Your task to perform on an android device: Open calendar and show me the second week of next month Image 0: 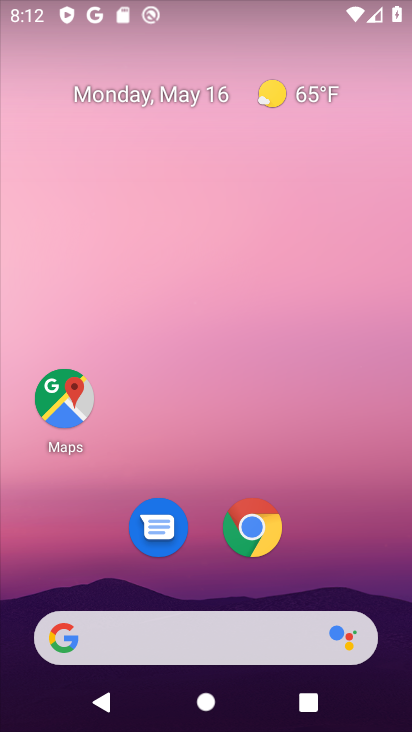
Step 0: drag from (330, 568) to (406, 180)
Your task to perform on an android device: Open calendar and show me the second week of next month Image 1: 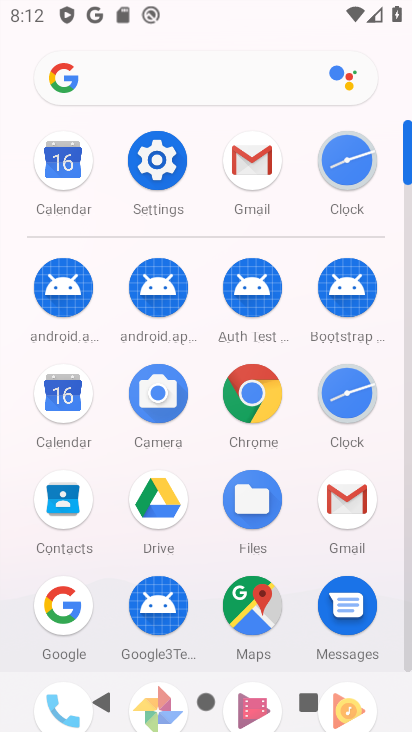
Step 1: click (63, 389)
Your task to perform on an android device: Open calendar and show me the second week of next month Image 2: 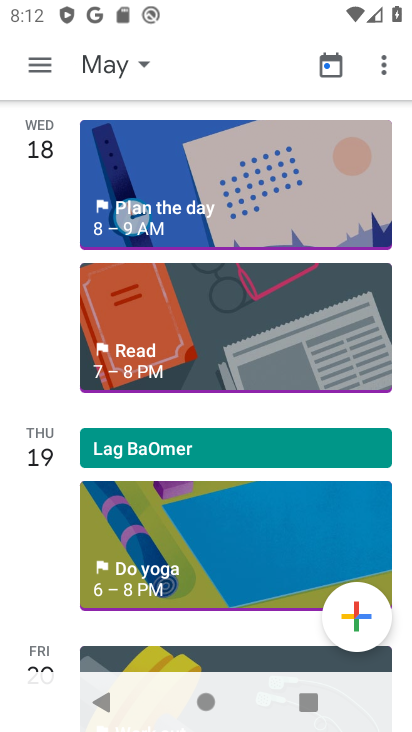
Step 2: click (31, 60)
Your task to perform on an android device: Open calendar and show me the second week of next month Image 3: 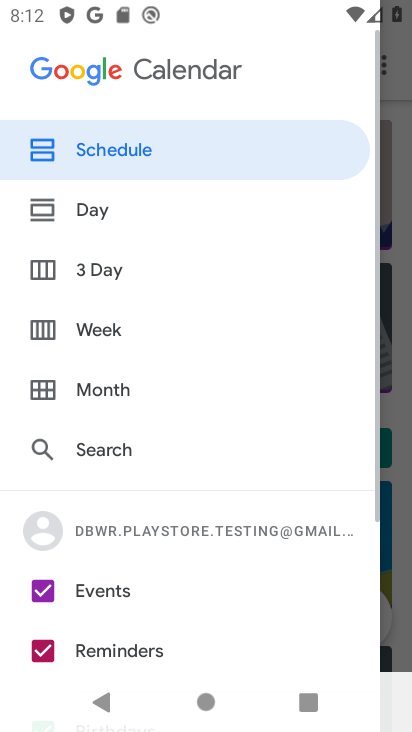
Step 3: click (112, 386)
Your task to perform on an android device: Open calendar and show me the second week of next month Image 4: 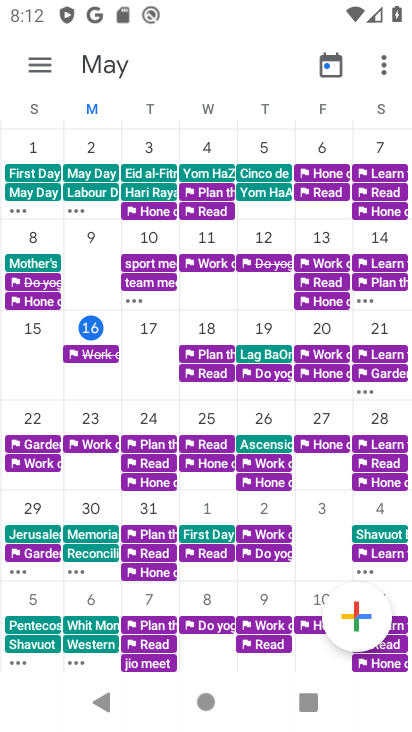
Step 4: task complete